Your task to perform on an android device: Search for "energizer triple a" on ebay, select the first entry, add it to the cart, then select checkout. Image 0: 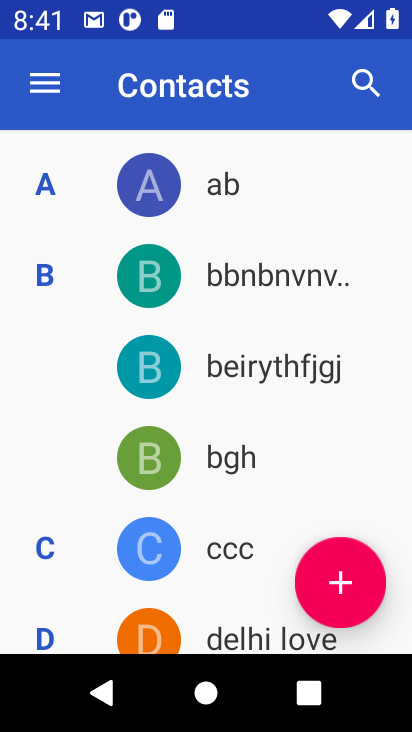
Step 0: press home button
Your task to perform on an android device: Search for "energizer triple a" on ebay, select the first entry, add it to the cart, then select checkout. Image 1: 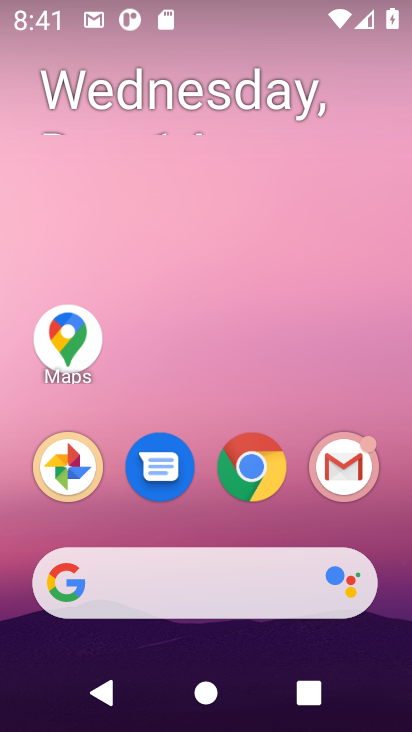
Step 1: click (263, 463)
Your task to perform on an android device: Search for "energizer triple a" on ebay, select the first entry, add it to the cart, then select checkout. Image 2: 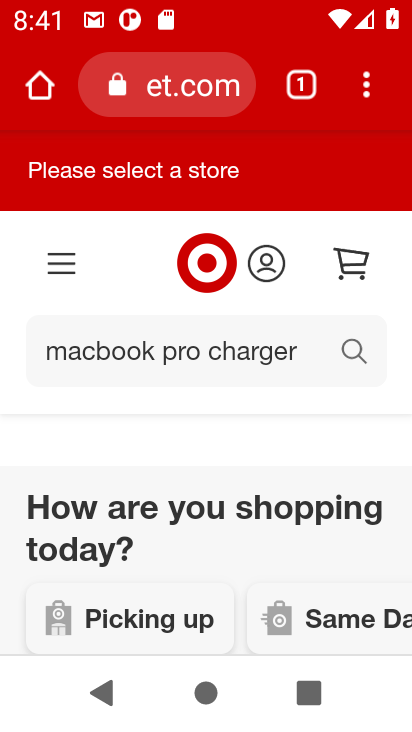
Step 2: click (167, 76)
Your task to perform on an android device: Search for "energizer triple a" on ebay, select the first entry, add it to the cart, then select checkout. Image 3: 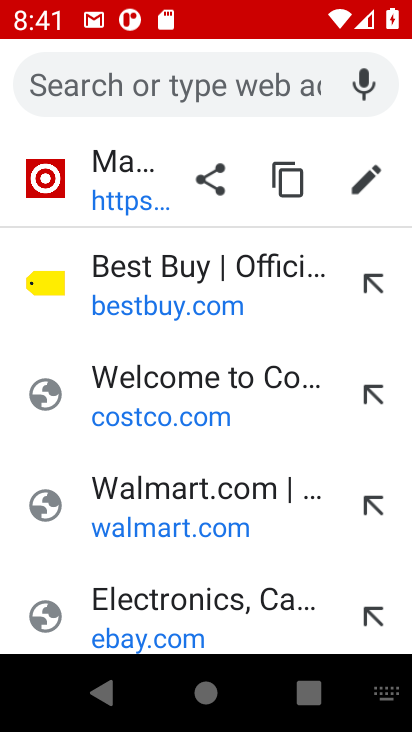
Step 3: click (147, 613)
Your task to perform on an android device: Search for "energizer triple a" on ebay, select the first entry, add it to the cart, then select checkout. Image 4: 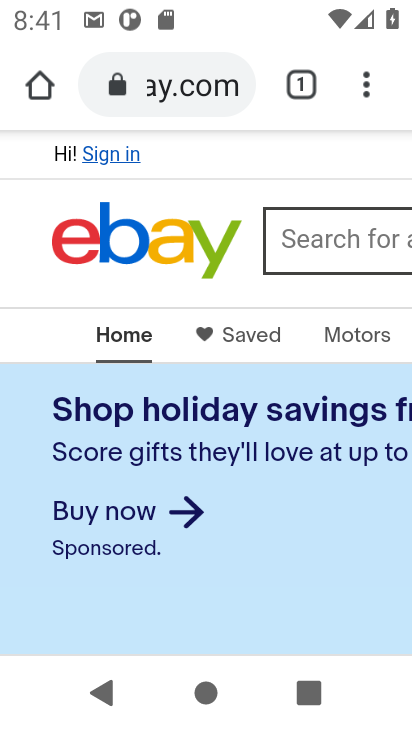
Step 4: click (345, 225)
Your task to perform on an android device: Search for "energizer triple a" on ebay, select the first entry, add it to the cart, then select checkout. Image 5: 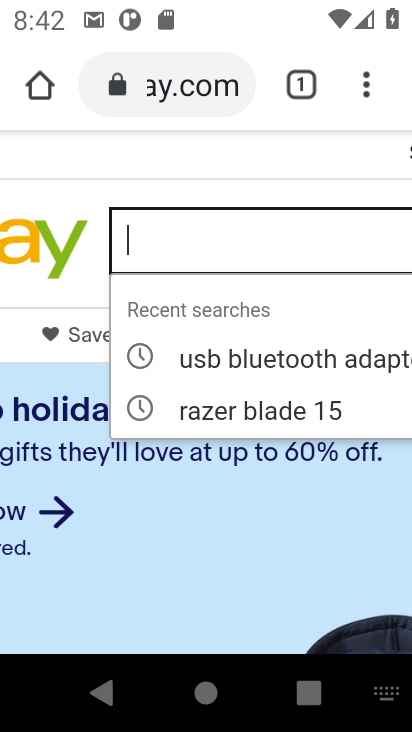
Step 5: type "energier"
Your task to perform on an android device: Search for "energizer triple a" on ebay, select the first entry, add it to the cart, then select checkout. Image 6: 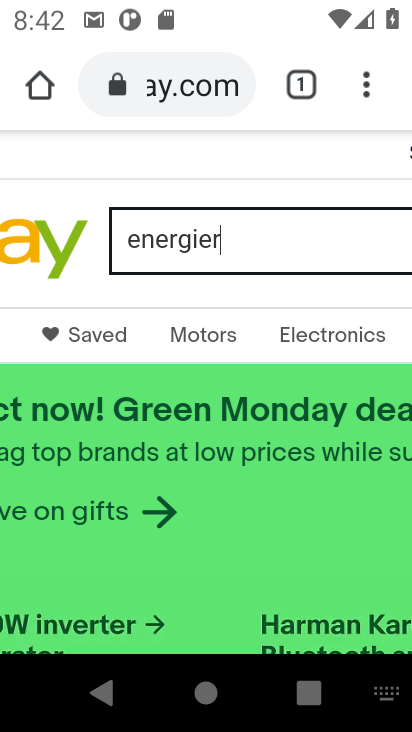
Step 6: click (246, 261)
Your task to perform on an android device: Search for "energizer triple a" on ebay, select the first entry, add it to the cart, then select checkout. Image 7: 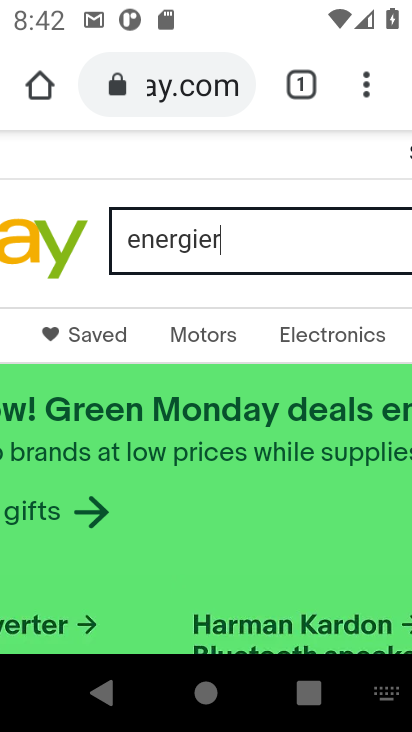
Step 7: click (246, 261)
Your task to perform on an android device: Search for "energizer triple a" on ebay, select the first entry, add it to the cart, then select checkout. Image 8: 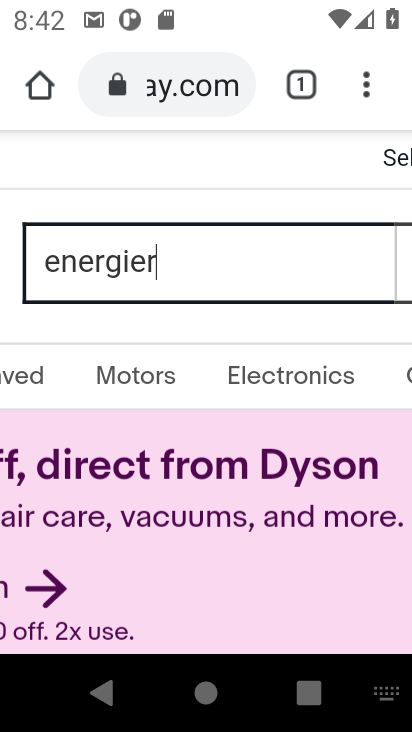
Step 8: type " triple a"
Your task to perform on an android device: Search for "energizer triple a" on ebay, select the first entry, add it to the cart, then select checkout. Image 9: 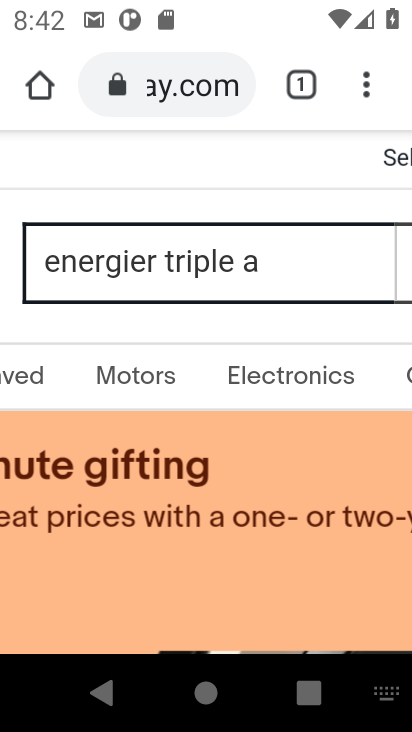
Step 9: click (400, 285)
Your task to perform on an android device: Search for "energizer triple a" on ebay, select the first entry, add it to the cart, then select checkout. Image 10: 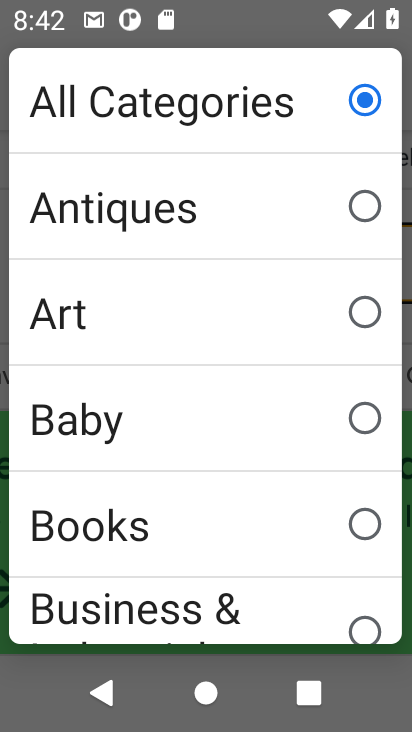
Step 10: click (325, 119)
Your task to perform on an android device: Search for "energizer triple a" on ebay, select the first entry, add it to the cart, then select checkout. Image 11: 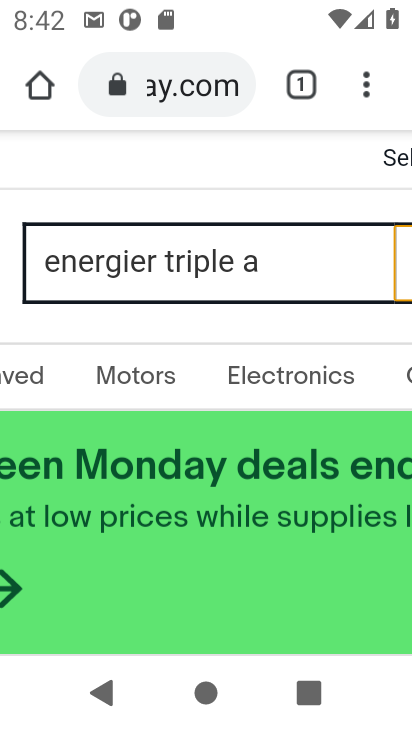
Step 11: click (130, 329)
Your task to perform on an android device: Search for "energizer triple a" on ebay, select the first entry, add it to the cart, then select checkout. Image 12: 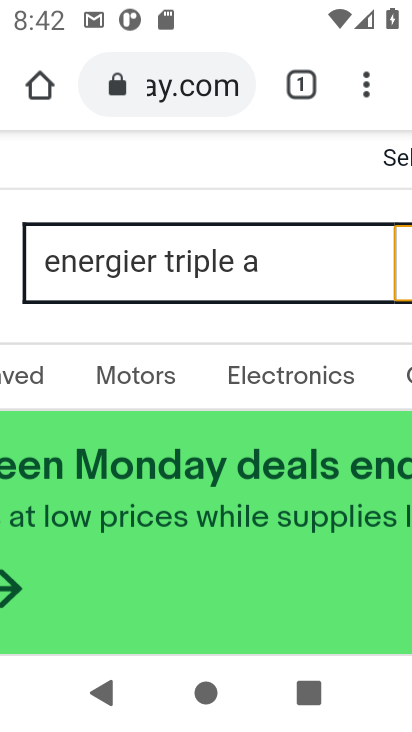
Step 12: click (130, 329)
Your task to perform on an android device: Search for "energizer triple a" on ebay, select the first entry, add it to the cart, then select checkout. Image 13: 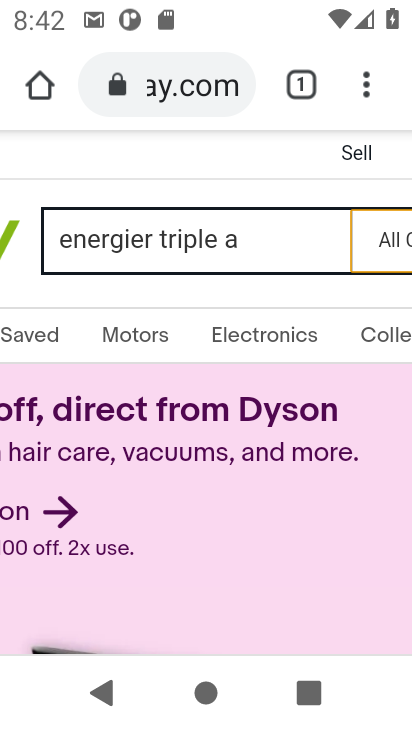
Step 13: click (130, 329)
Your task to perform on an android device: Search for "energizer triple a" on ebay, select the first entry, add it to the cart, then select checkout. Image 14: 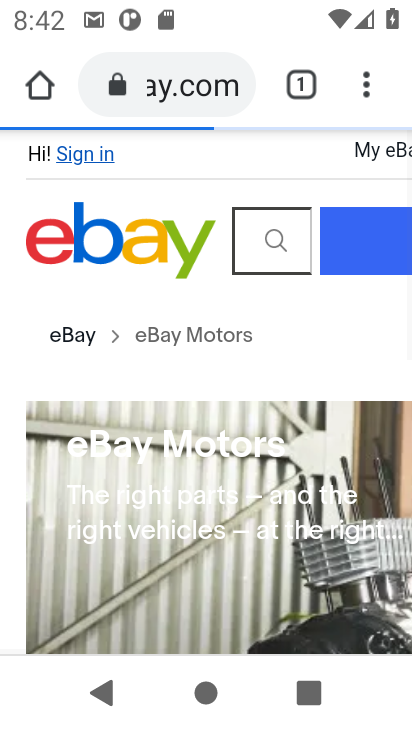
Step 14: task complete